Your task to perform on an android device: toggle improve location accuracy Image 0: 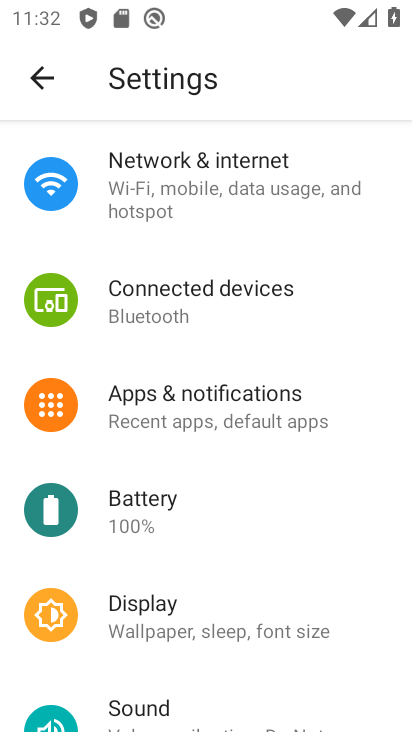
Step 0: drag from (110, 683) to (82, 180)
Your task to perform on an android device: toggle improve location accuracy Image 1: 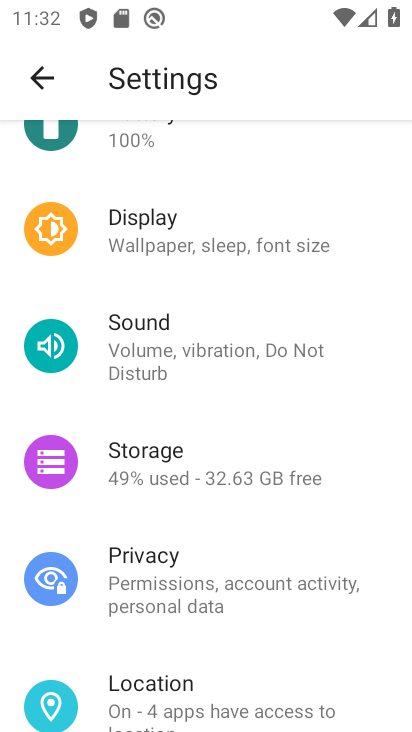
Step 1: drag from (162, 591) to (180, 236)
Your task to perform on an android device: toggle improve location accuracy Image 2: 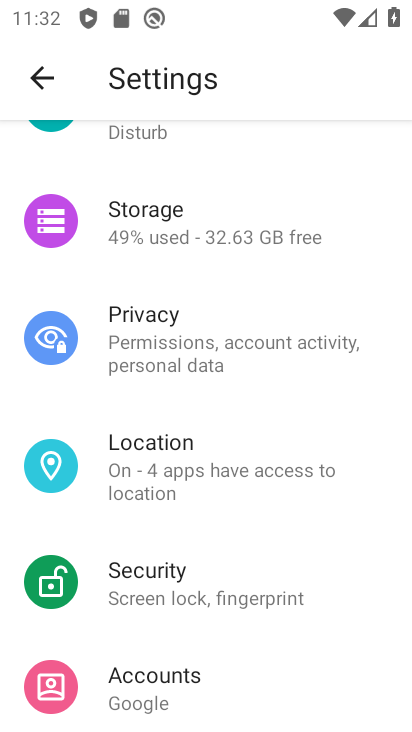
Step 2: click (247, 455)
Your task to perform on an android device: toggle improve location accuracy Image 3: 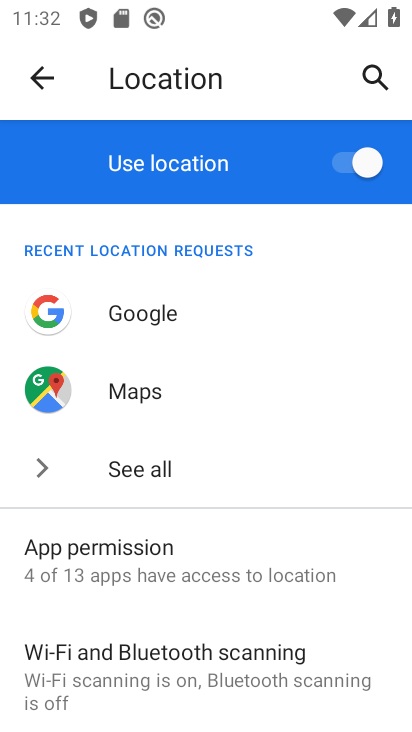
Step 3: drag from (251, 695) to (286, 322)
Your task to perform on an android device: toggle improve location accuracy Image 4: 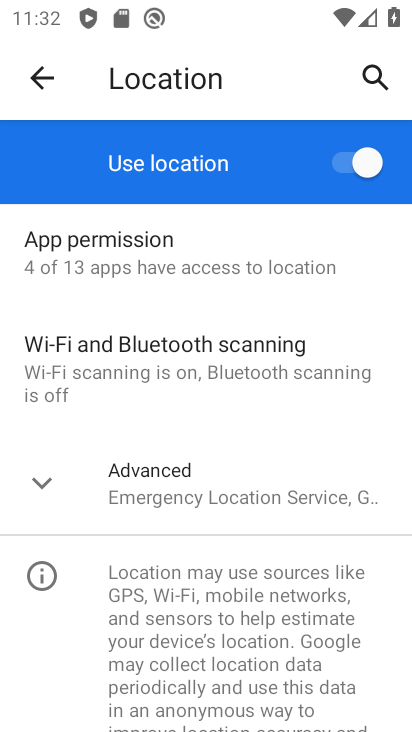
Step 4: drag from (276, 628) to (300, 341)
Your task to perform on an android device: toggle improve location accuracy Image 5: 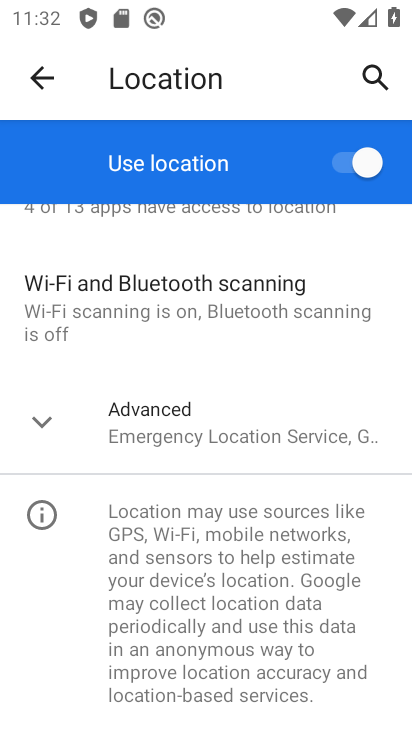
Step 5: click (235, 423)
Your task to perform on an android device: toggle improve location accuracy Image 6: 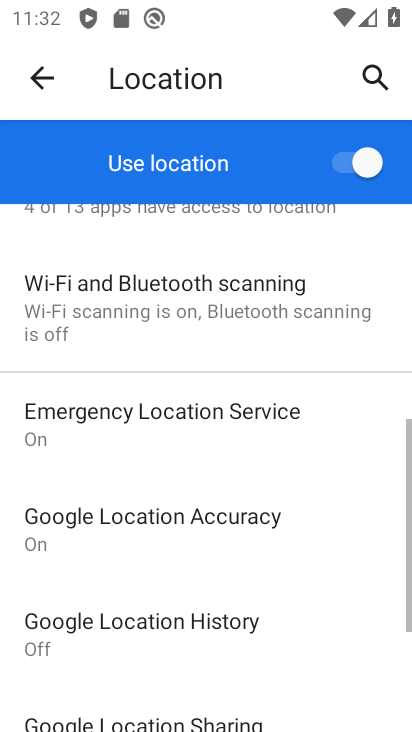
Step 6: drag from (235, 686) to (280, 447)
Your task to perform on an android device: toggle improve location accuracy Image 7: 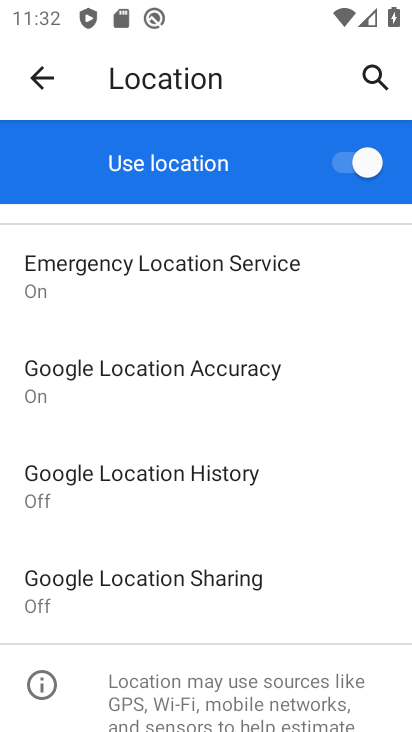
Step 7: click (212, 394)
Your task to perform on an android device: toggle improve location accuracy Image 8: 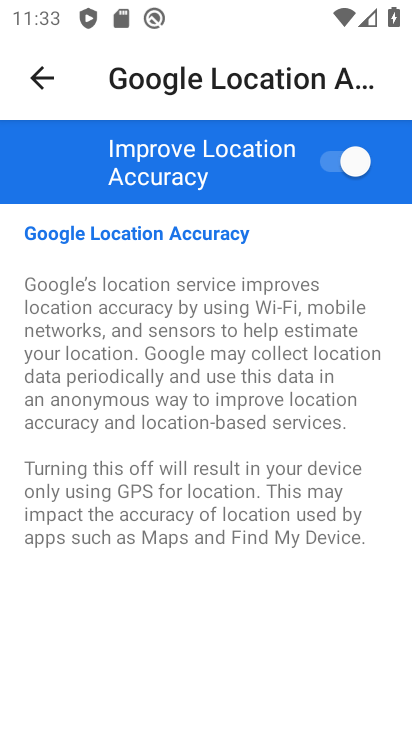
Step 8: click (332, 157)
Your task to perform on an android device: toggle improve location accuracy Image 9: 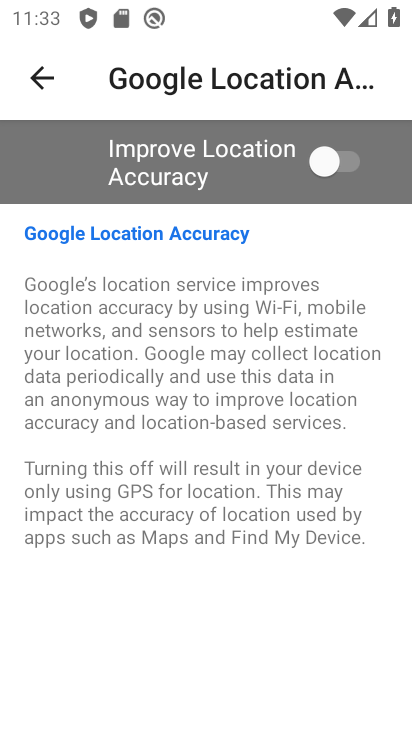
Step 9: task complete